Your task to perform on an android device: Open CNN.com Image 0: 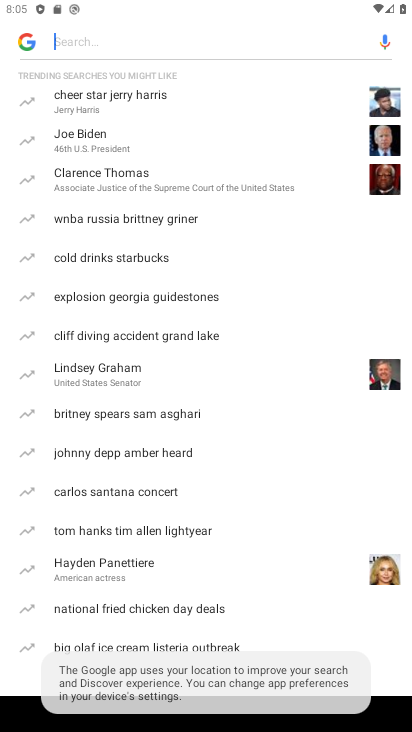
Step 0: press home button
Your task to perform on an android device: Open CNN.com Image 1: 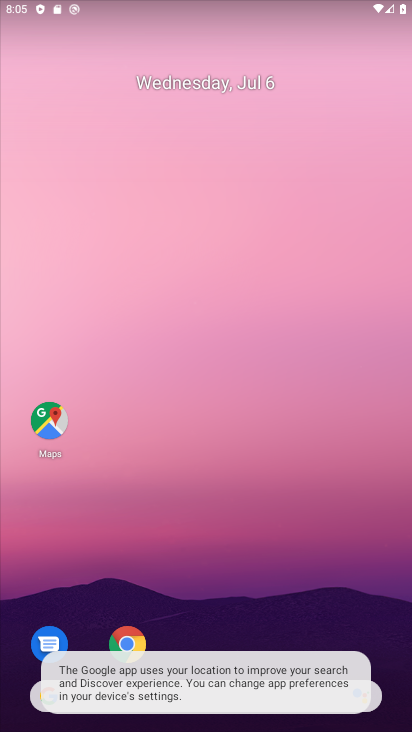
Step 1: drag from (205, 622) to (167, 211)
Your task to perform on an android device: Open CNN.com Image 2: 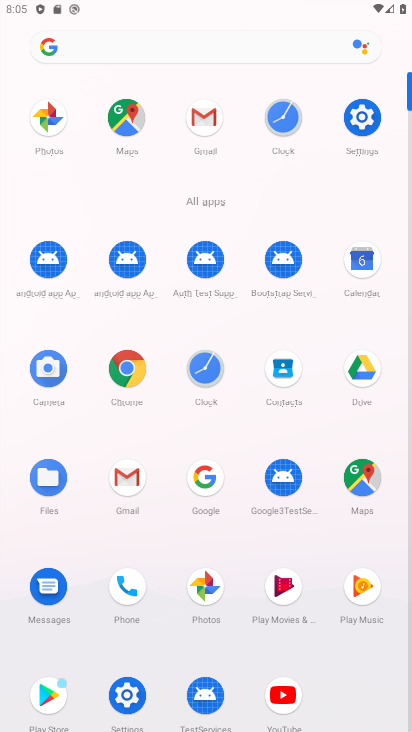
Step 2: click (138, 366)
Your task to perform on an android device: Open CNN.com Image 3: 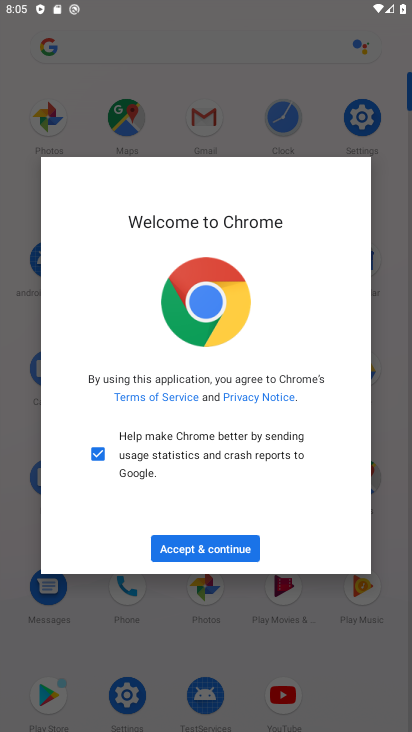
Step 3: click (217, 543)
Your task to perform on an android device: Open CNN.com Image 4: 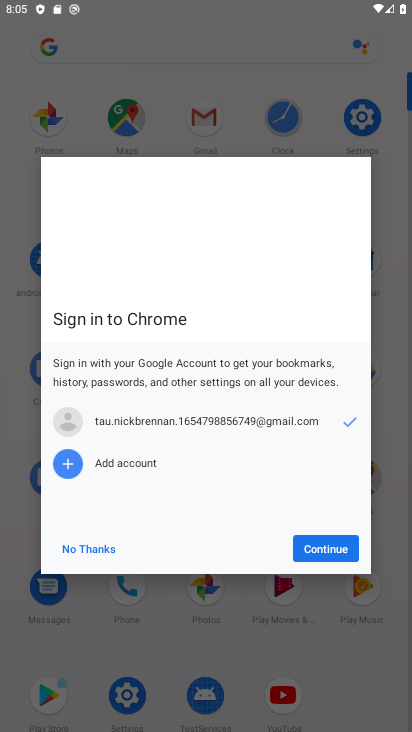
Step 4: click (317, 537)
Your task to perform on an android device: Open CNN.com Image 5: 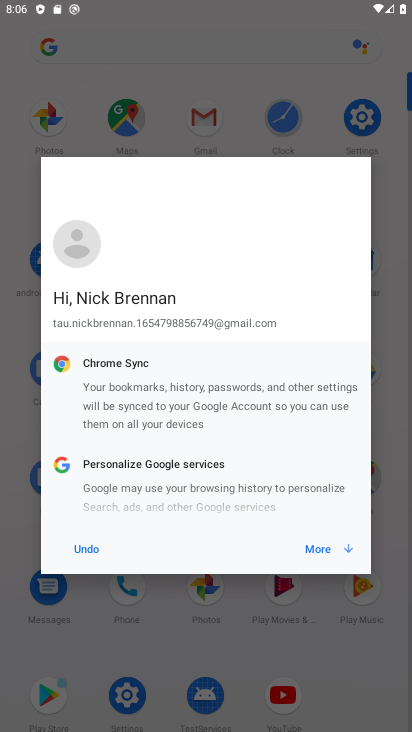
Step 5: click (316, 532)
Your task to perform on an android device: Open CNN.com Image 6: 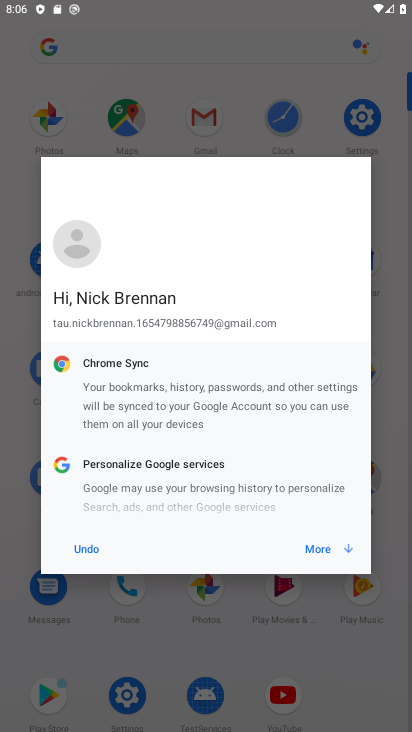
Step 6: click (332, 547)
Your task to perform on an android device: Open CNN.com Image 7: 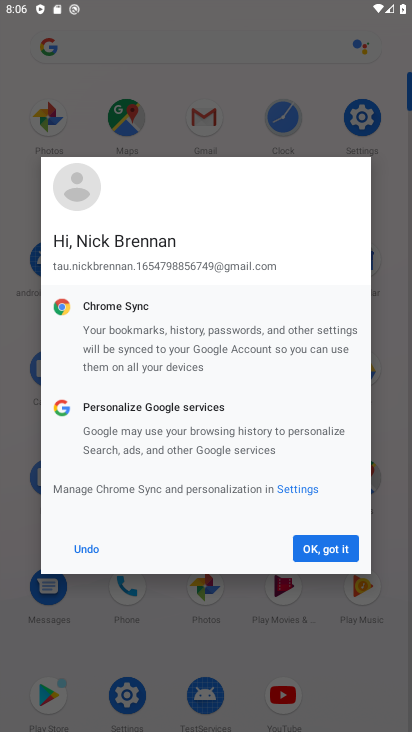
Step 7: click (332, 547)
Your task to perform on an android device: Open CNN.com Image 8: 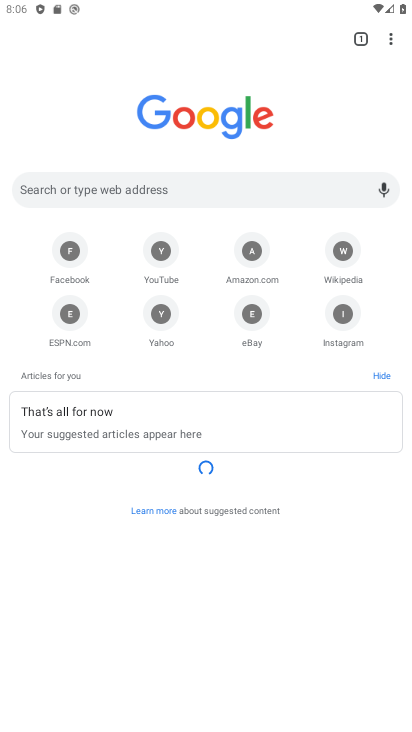
Step 8: click (224, 174)
Your task to perform on an android device: Open CNN.com Image 9: 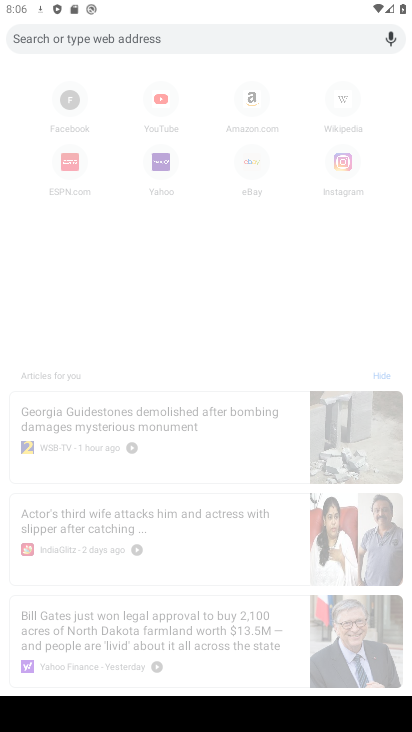
Step 9: type "CNN.com"
Your task to perform on an android device: Open CNN.com Image 10: 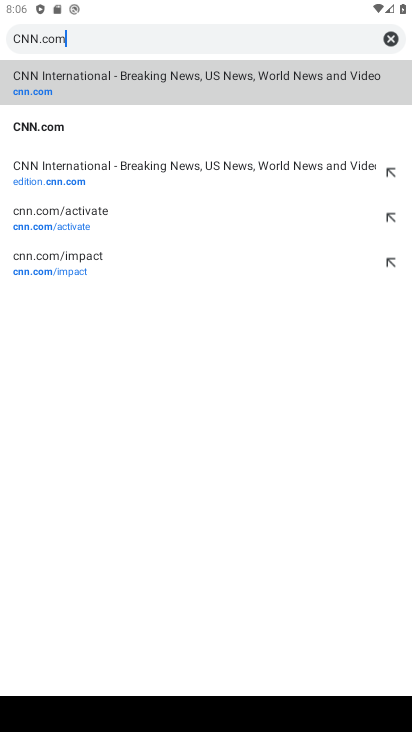
Step 10: click (150, 90)
Your task to perform on an android device: Open CNN.com Image 11: 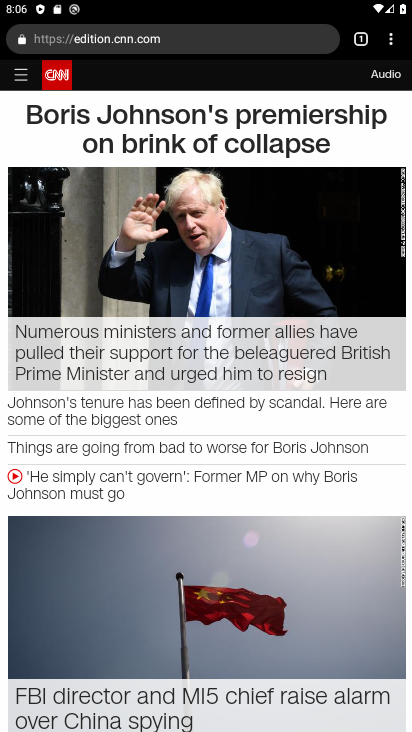
Step 11: task complete